Your task to perform on an android device: turn on airplane mode Image 0: 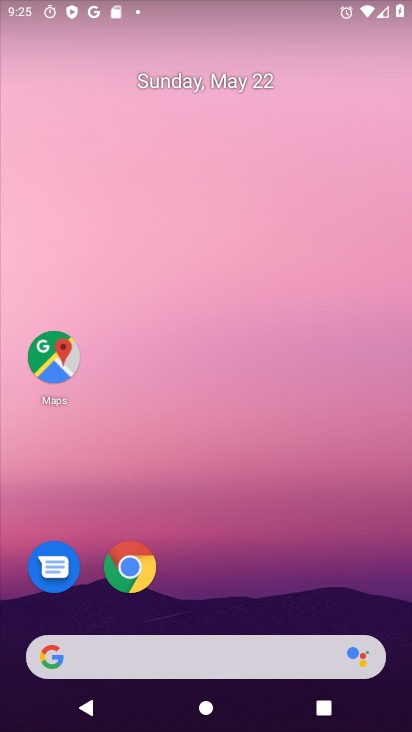
Step 0: drag from (196, 594) to (219, 22)
Your task to perform on an android device: turn on airplane mode Image 1: 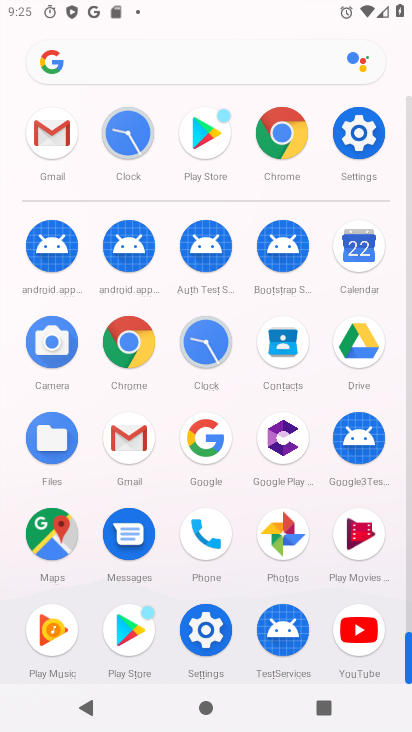
Step 1: click (363, 138)
Your task to perform on an android device: turn on airplane mode Image 2: 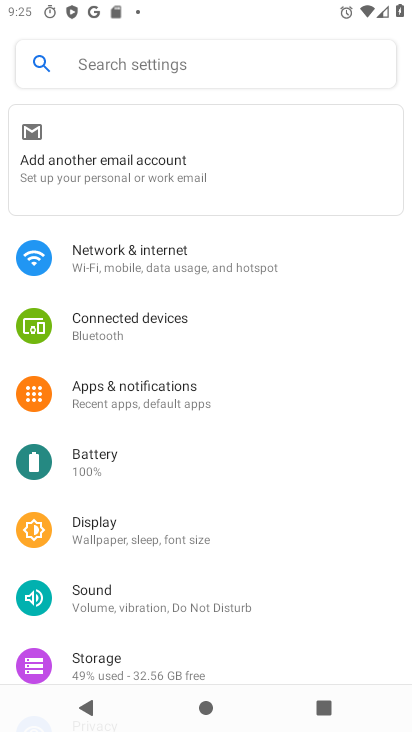
Step 2: click (192, 269)
Your task to perform on an android device: turn on airplane mode Image 3: 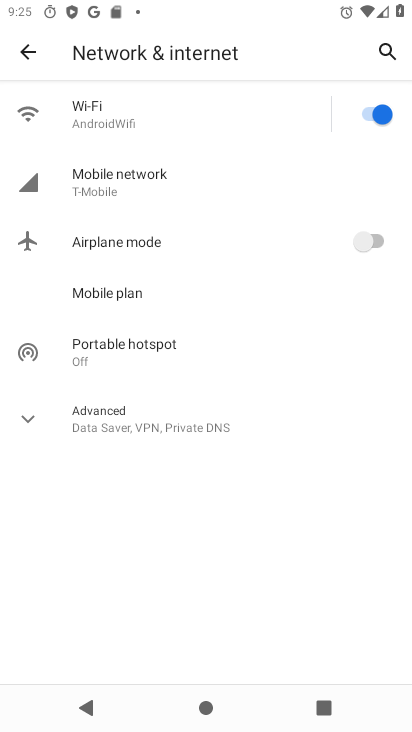
Step 3: click (387, 234)
Your task to perform on an android device: turn on airplane mode Image 4: 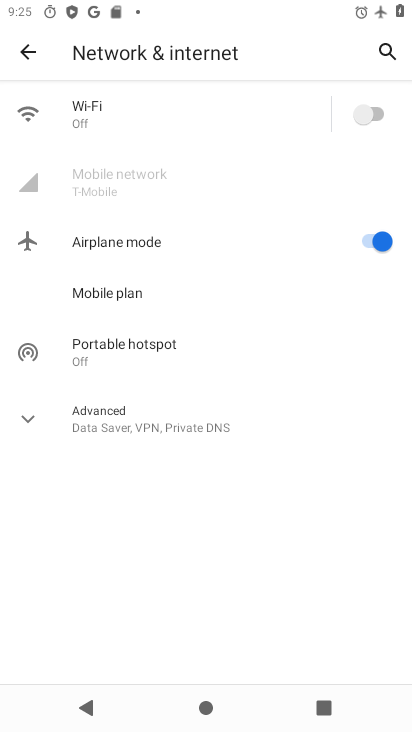
Step 4: task complete